Your task to perform on an android device: Show me recent news Image 0: 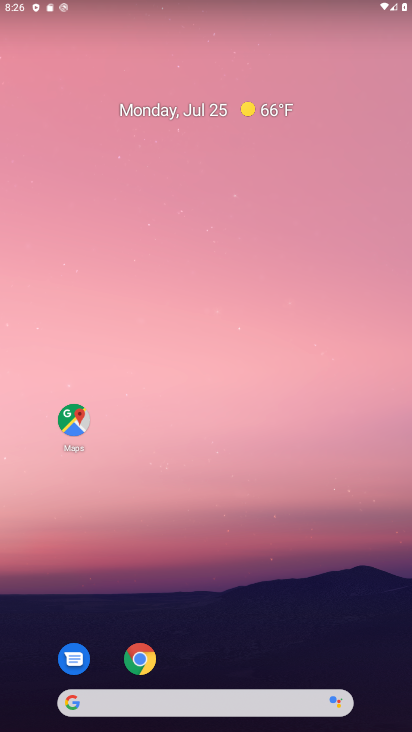
Step 0: drag from (267, 77) to (244, 112)
Your task to perform on an android device: Show me recent news Image 1: 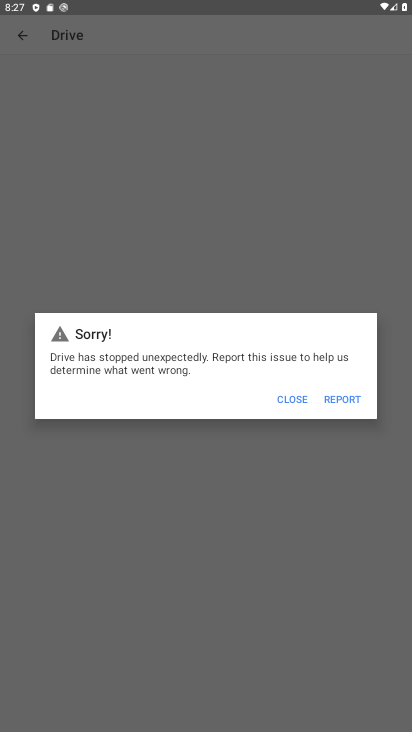
Step 1: click (284, 412)
Your task to perform on an android device: Show me recent news Image 2: 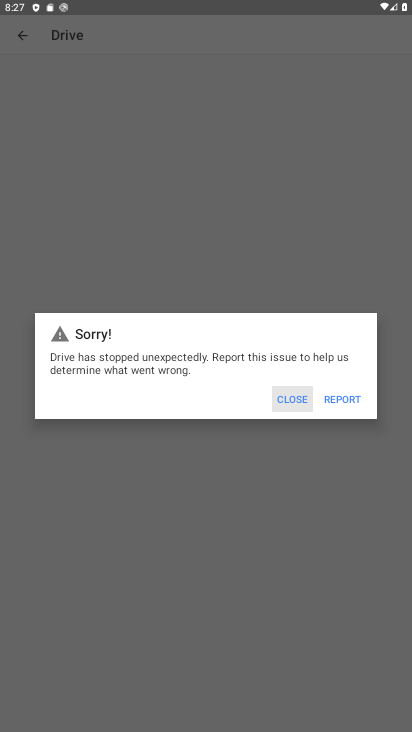
Step 2: click (282, 407)
Your task to perform on an android device: Show me recent news Image 3: 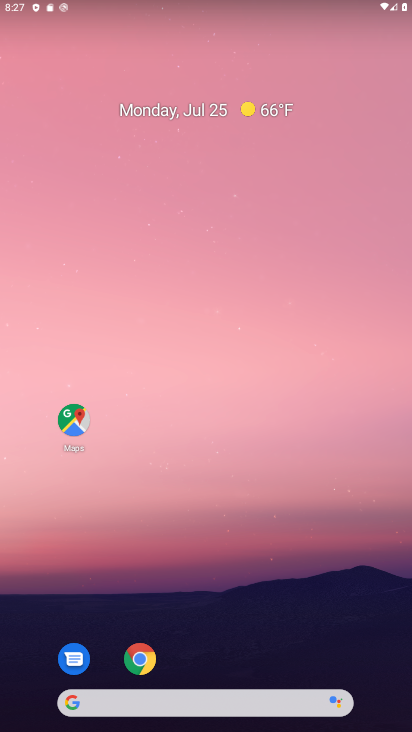
Step 3: drag from (288, 502) to (214, 259)
Your task to perform on an android device: Show me recent news Image 4: 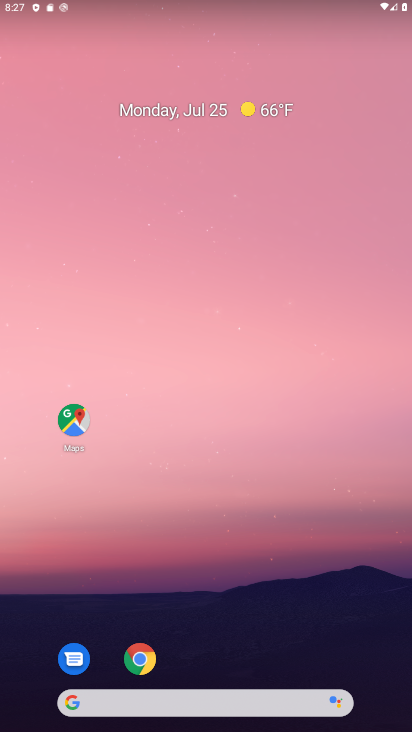
Step 4: drag from (311, 273) to (261, 48)
Your task to perform on an android device: Show me recent news Image 5: 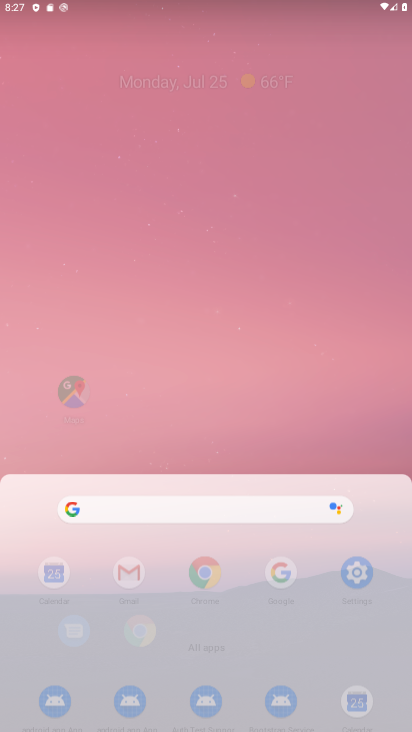
Step 5: drag from (278, 261) to (259, 192)
Your task to perform on an android device: Show me recent news Image 6: 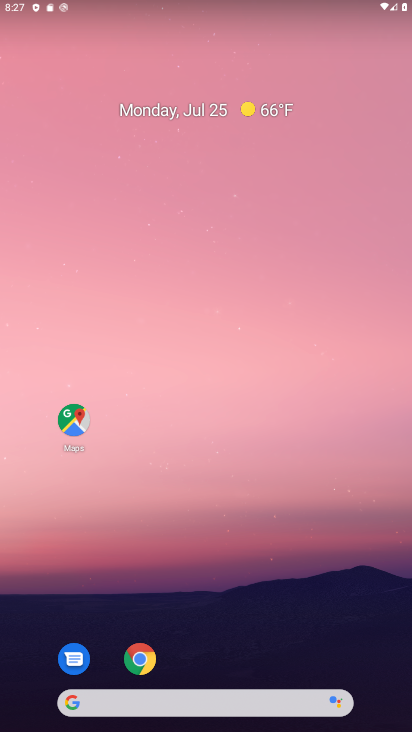
Step 6: drag from (262, 284) to (247, 225)
Your task to perform on an android device: Show me recent news Image 7: 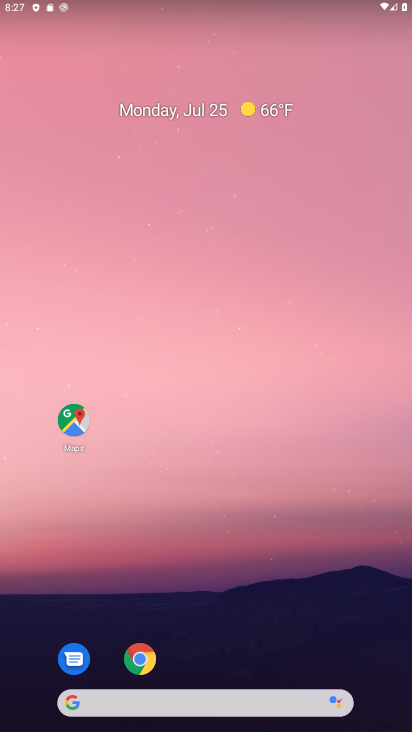
Step 7: drag from (238, 255) to (219, 129)
Your task to perform on an android device: Show me recent news Image 8: 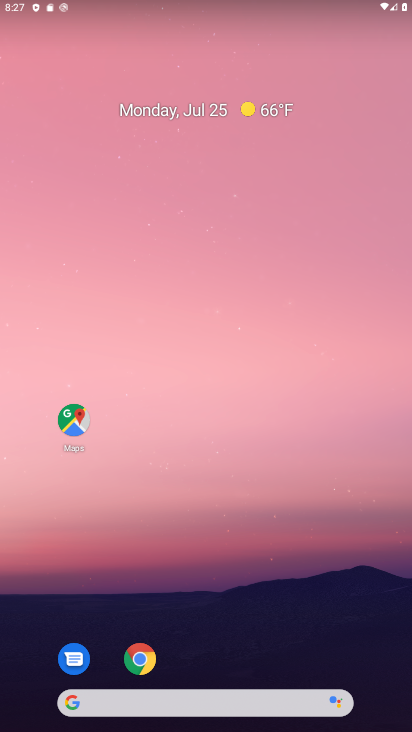
Step 8: drag from (242, 577) to (203, 305)
Your task to perform on an android device: Show me recent news Image 9: 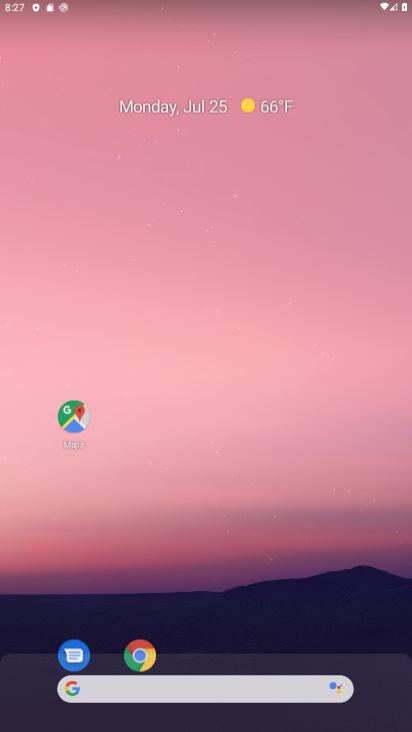
Step 9: click (208, 56)
Your task to perform on an android device: Show me recent news Image 10: 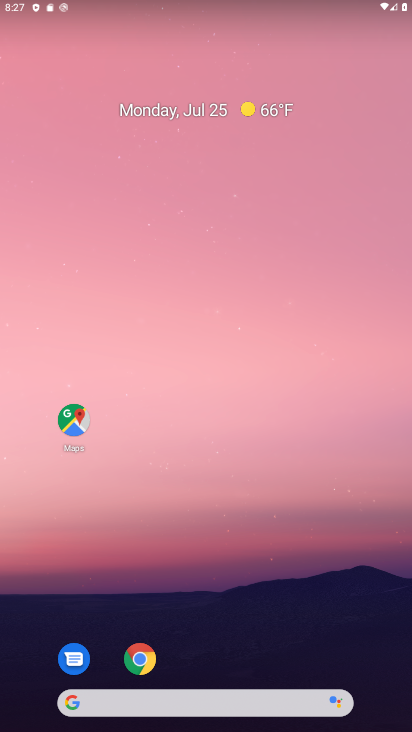
Step 10: click (275, 157)
Your task to perform on an android device: Show me recent news Image 11: 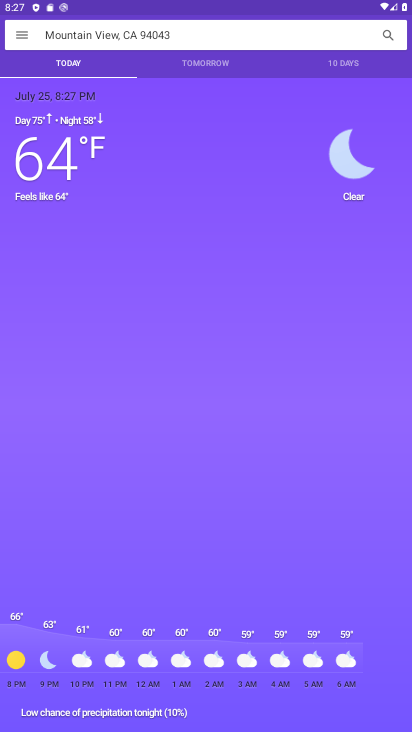
Step 11: press back button
Your task to perform on an android device: Show me recent news Image 12: 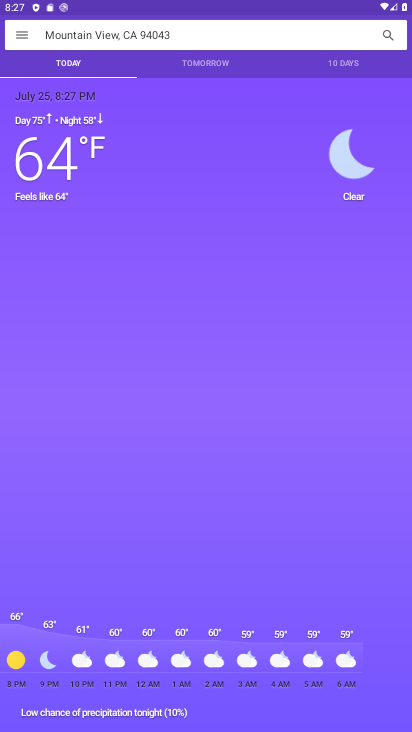
Step 12: press back button
Your task to perform on an android device: Show me recent news Image 13: 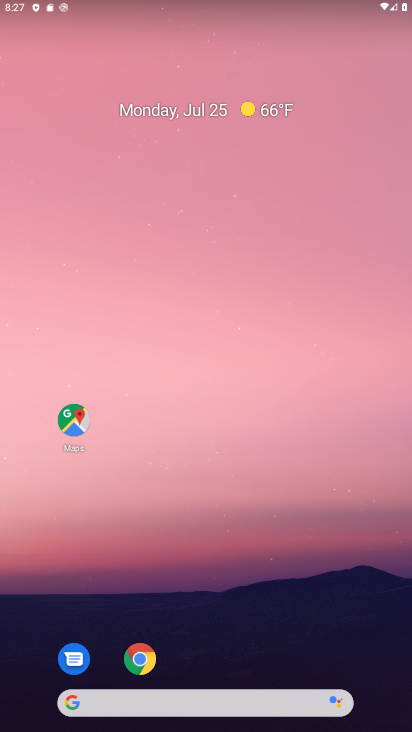
Step 13: drag from (203, 594) to (197, 14)
Your task to perform on an android device: Show me recent news Image 14: 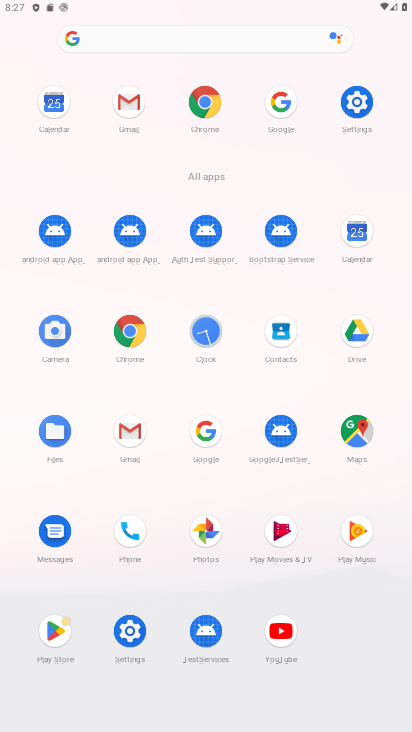
Step 14: click (131, 344)
Your task to perform on an android device: Show me recent news Image 15: 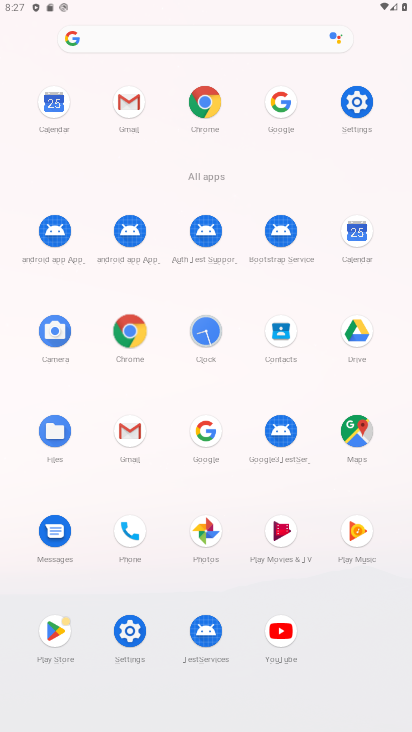
Step 15: click (132, 343)
Your task to perform on an android device: Show me recent news Image 16: 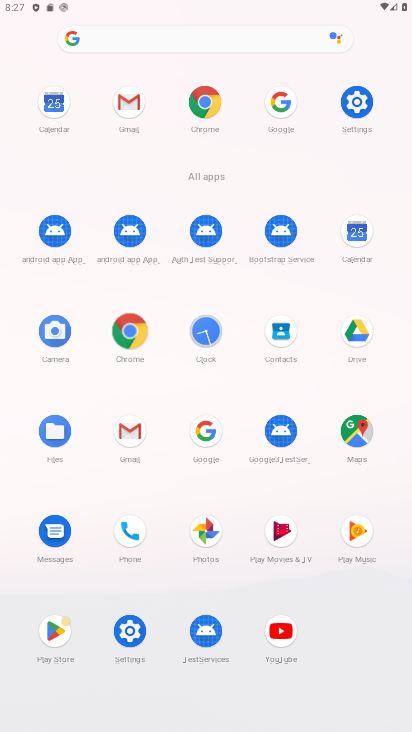
Step 16: click (143, 332)
Your task to perform on an android device: Show me recent news Image 17: 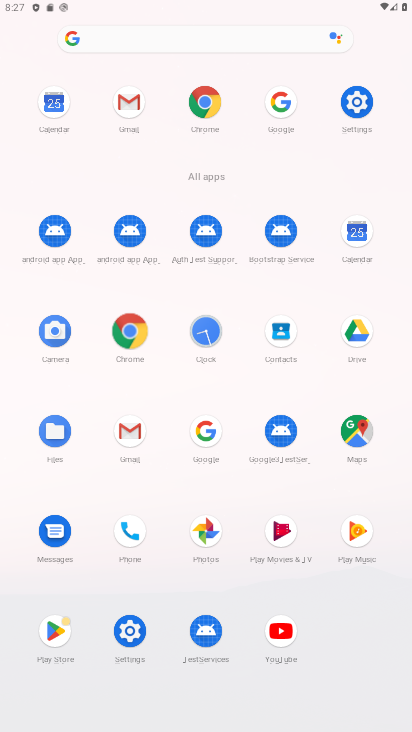
Step 17: click (143, 329)
Your task to perform on an android device: Show me recent news Image 18: 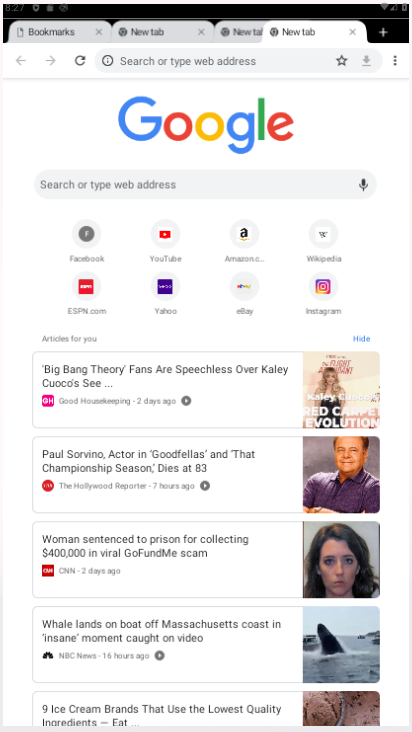
Step 18: click (143, 331)
Your task to perform on an android device: Show me recent news Image 19: 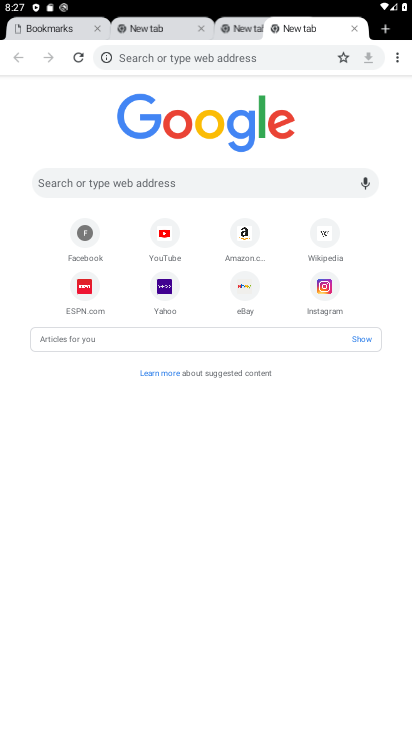
Step 19: drag from (223, 597) to (192, 265)
Your task to perform on an android device: Show me recent news Image 20: 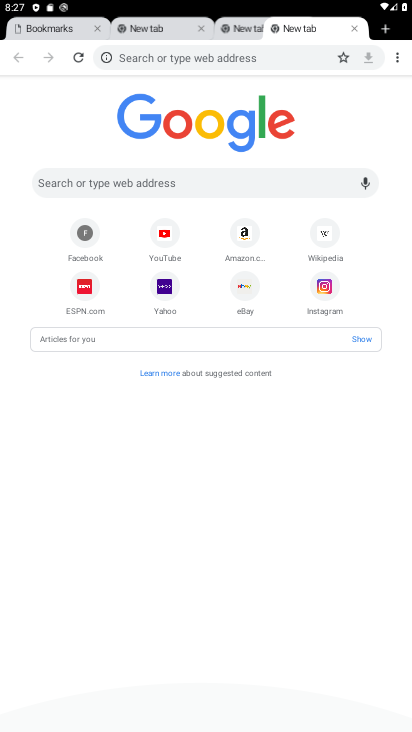
Step 20: drag from (232, 494) to (244, 223)
Your task to perform on an android device: Show me recent news Image 21: 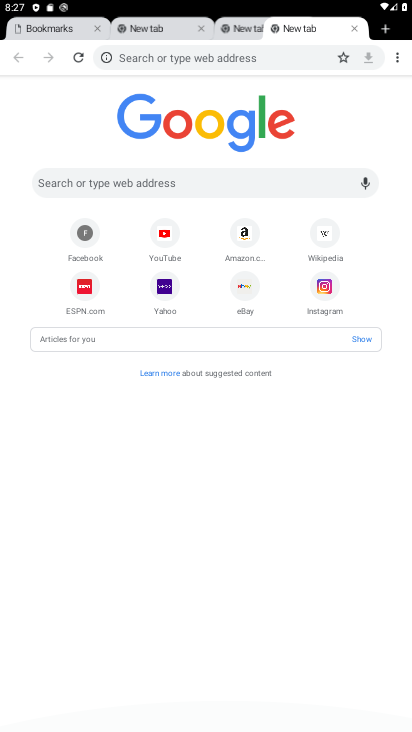
Step 21: drag from (220, 379) to (223, 413)
Your task to perform on an android device: Show me recent news Image 22: 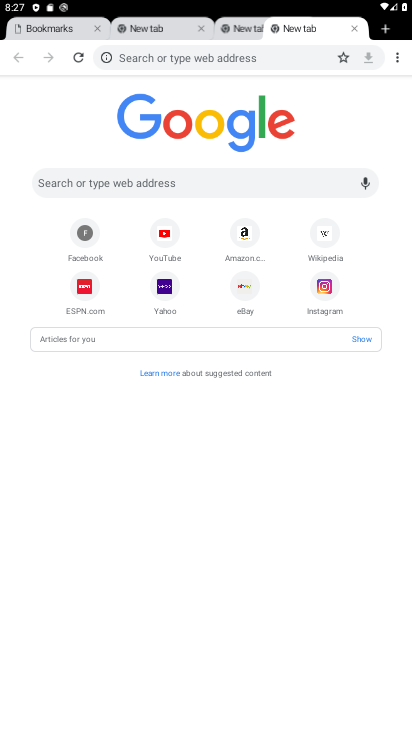
Step 22: drag from (225, 219) to (288, 503)
Your task to perform on an android device: Show me recent news Image 23: 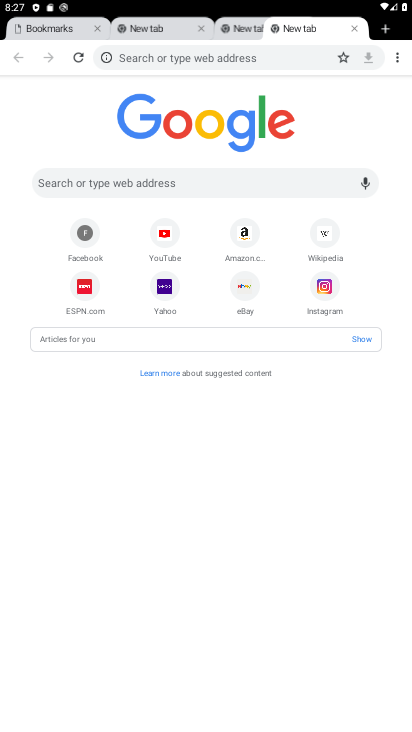
Step 23: click (223, 368)
Your task to perform on an android device: Show me recent news Image 24: 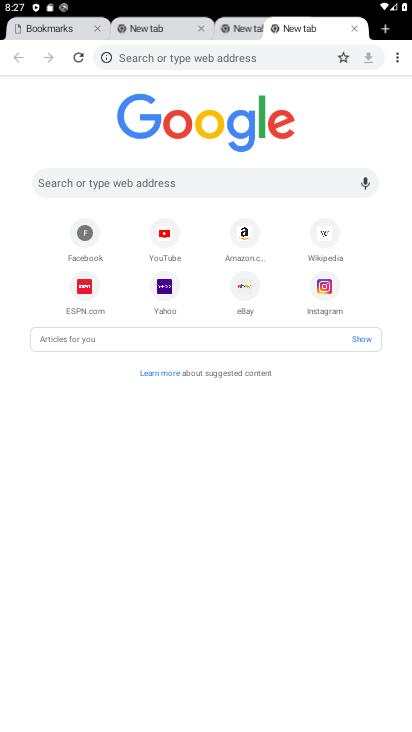
Step 24: click (223, 368)
Your task to perform on an android device: Show me recent news Image 25: 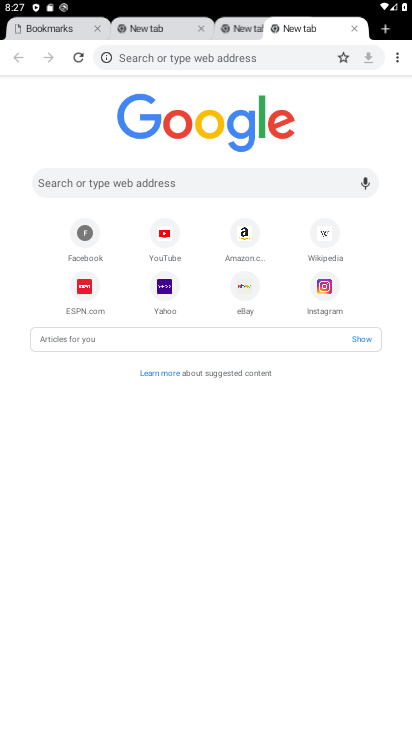
Step 25: click (223, 368)
Your task to perform on an android device: Show me recent news Image 26: 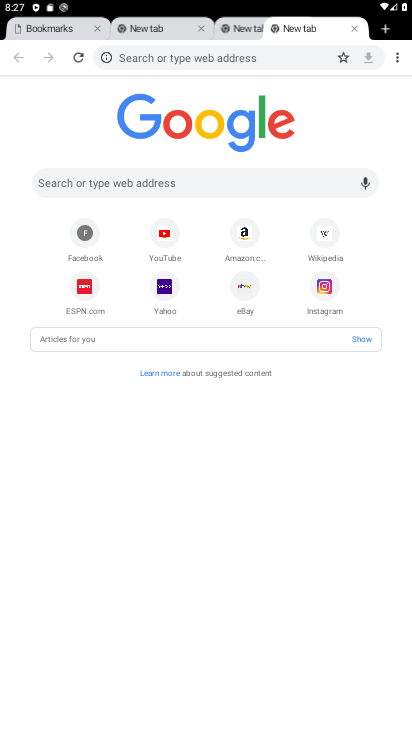
Step 26: click (165, 359)
Your task to perform on an android device: Show me recent news Image 27: 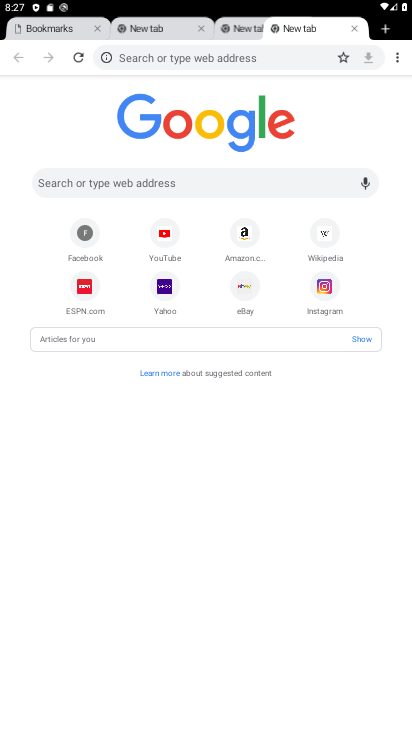
Step 27: click (179, 365)
Your task to perform on an android device: Show me recent news Image 28: 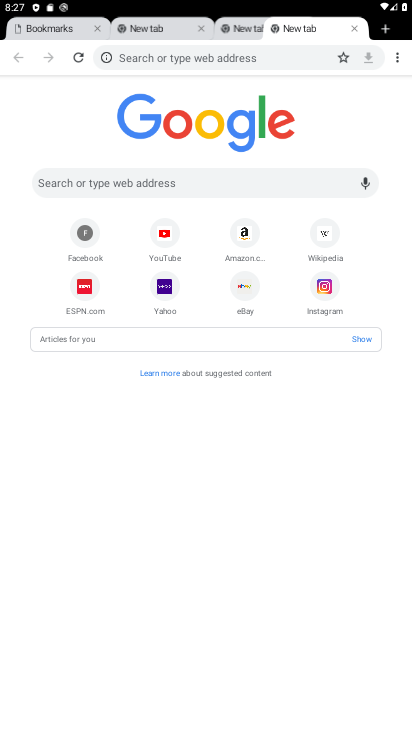
Step 28: click (180, 366)
Your task to perform on an android device: Show me recent news Image 29: 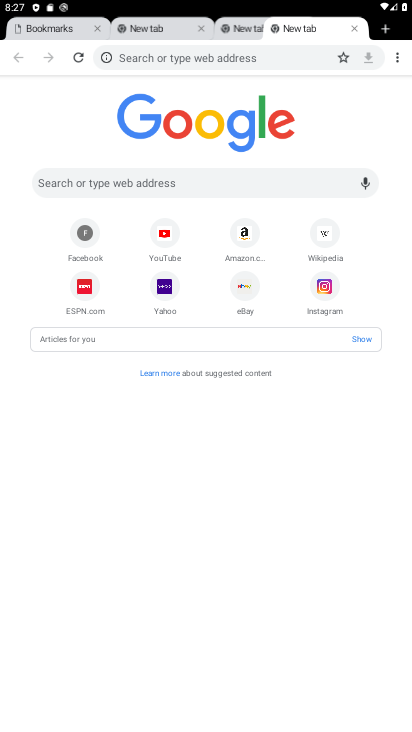
Step 29: task complete